Your task to perform on an android device: Open Google Chrome and open the bookmarks view Image 0: 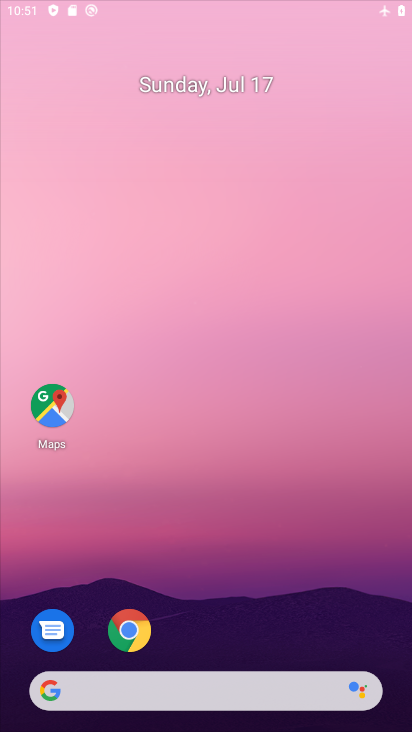
Step 0: click (157, 31)
Your task to perform on an android device: Open Google Chrome and open the bookmarks view Image 1: 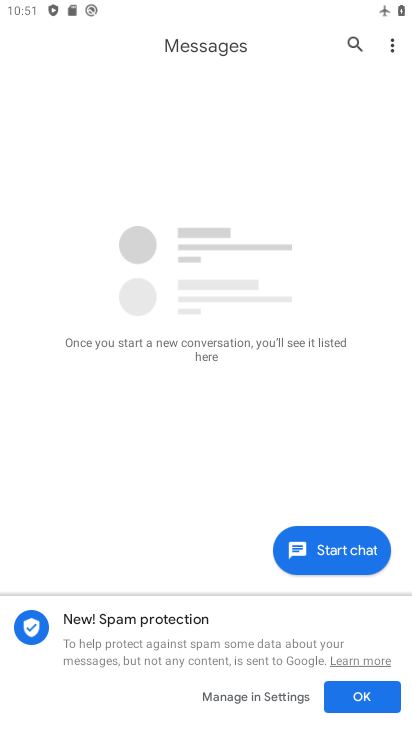
Step 1: press home button
Your task to perform on an android device: Open Google Chrome and open the bookmarks view Image 2: 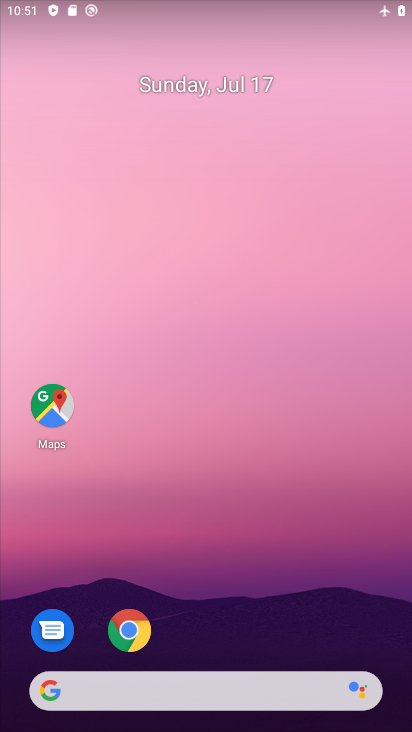
Step 2: click (136, 617)
Your task to perform on an android device: Open Google Chrome and open the bookmarks view Image 3: 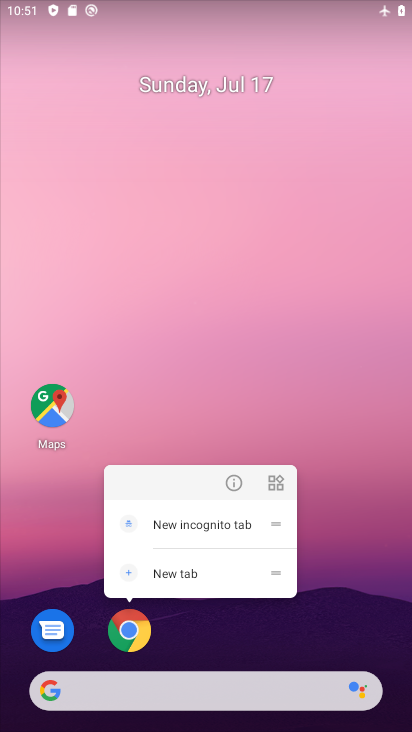
Step 3: click (144, 634)
Your task to perform on an android device: Open Google Chrome and open the bookmarks view Image 4: 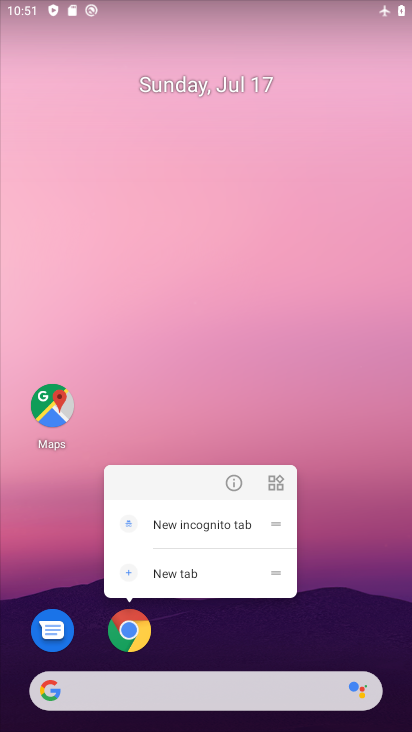
Step 4: click (142, 632)
Your task to perform on an android device: Open Google Chrome and open the bookmarks view Image 5: 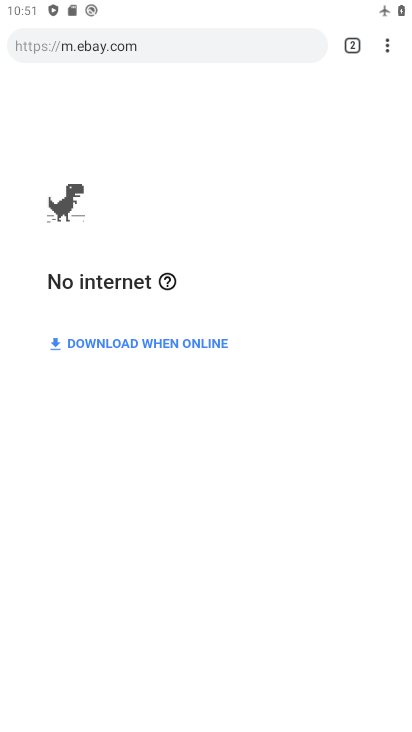
Step 5: click (385, 45)
Your task to perform on an android device: Open Google Chrome and open the bookmarks view Image 6: 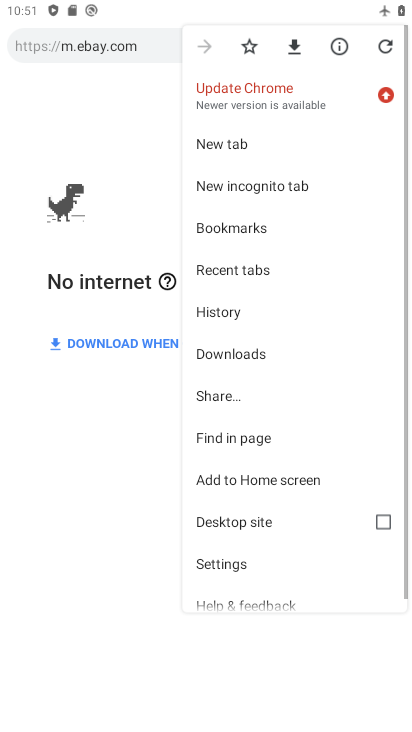
Step 6: click (227, 232)
Your task to perform on an android device: Open Google Chrome and open the bookmarks view Image 7: 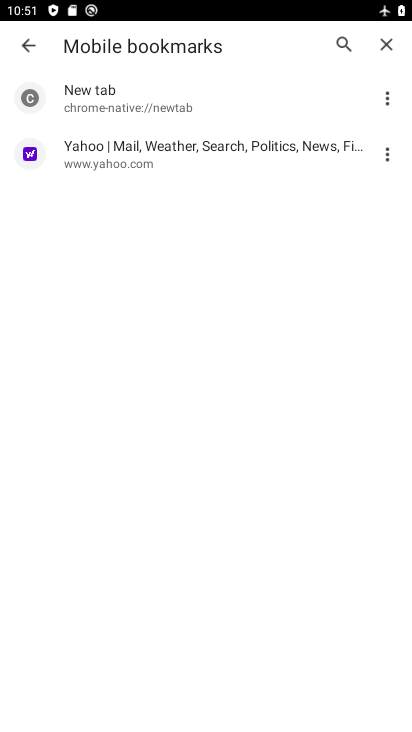
Step 7: task complete